Your task to perform on an android device: see sites visited before in the chrome app Image 0: 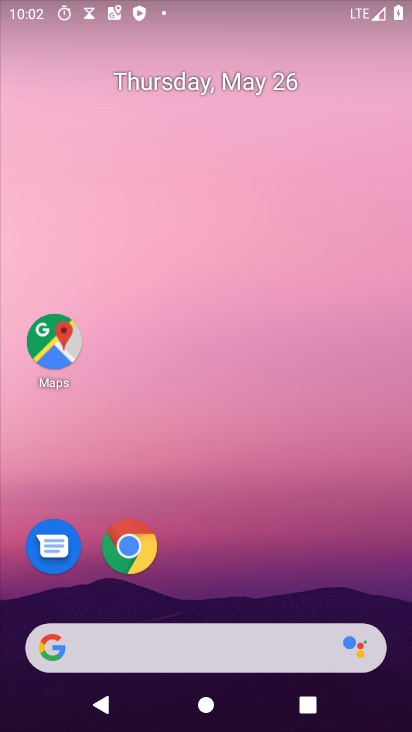
Step 0: drag from (382, 569) to (339, 139)
Your task to perform on an android device: see sites visited before in the chrome app Image 1: 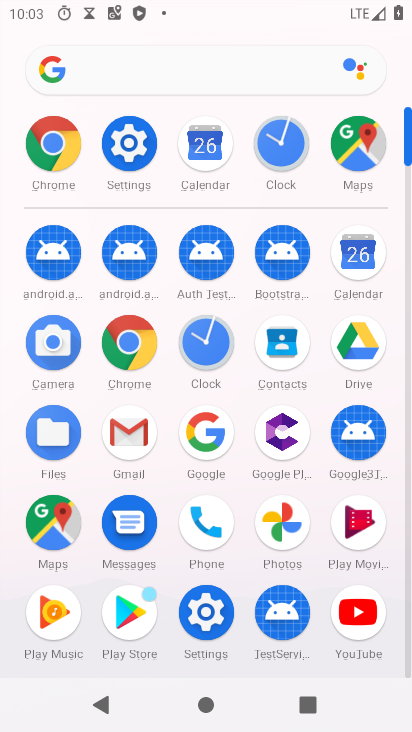
Step 1: click (134, 365)
Your task to perform on an android device: see sites visited before in the chrome app Image 2: 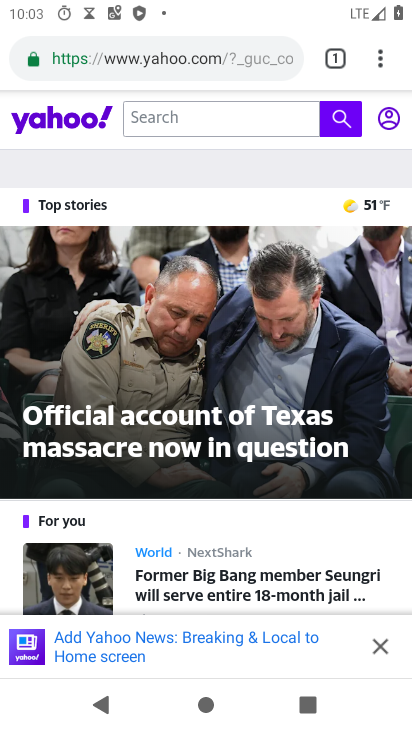
Step 2: drag from (386, 68) to (181, 576)
Your task to perform on an android device: see sites visited before in the chrome app Image 3: 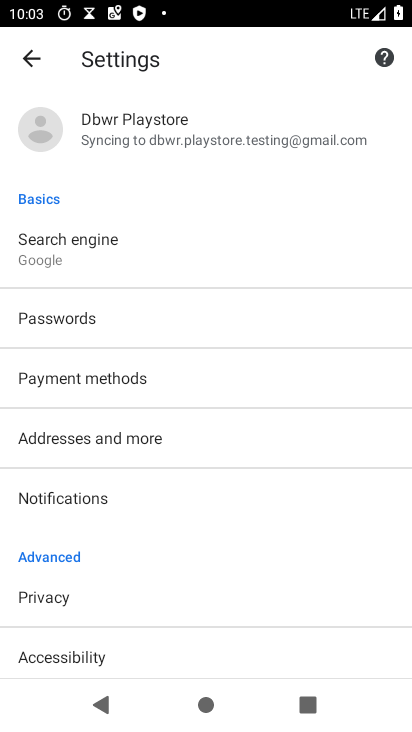
Step 3: click (28, 63)
Your task to perform on an android device: see sites visited before in the chrome app Image 4: 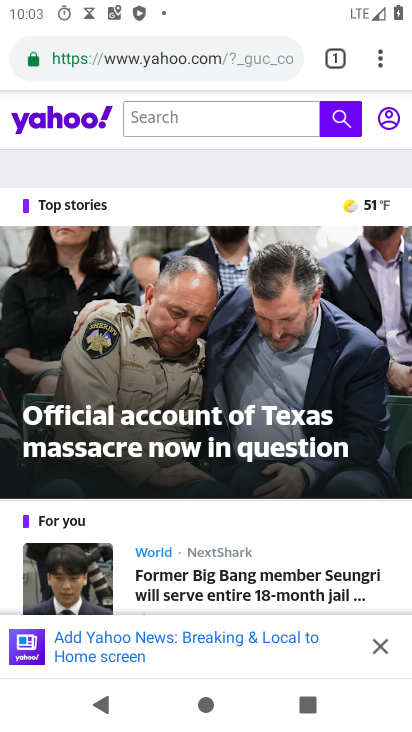
Step 4: drag from (392, 55) to (189, 199)
Your task to perform on an android device: see sites visited before in the chrome app Image 5: 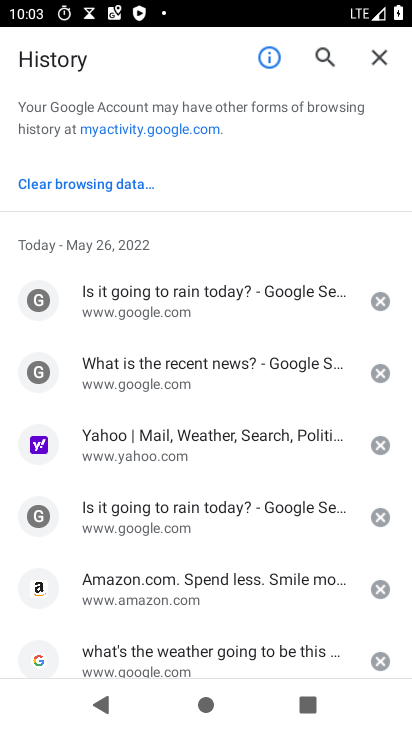
Step 5: click (96, 186)
Your task to perform on an android device: see sites visited before in the chrome app Image 6: 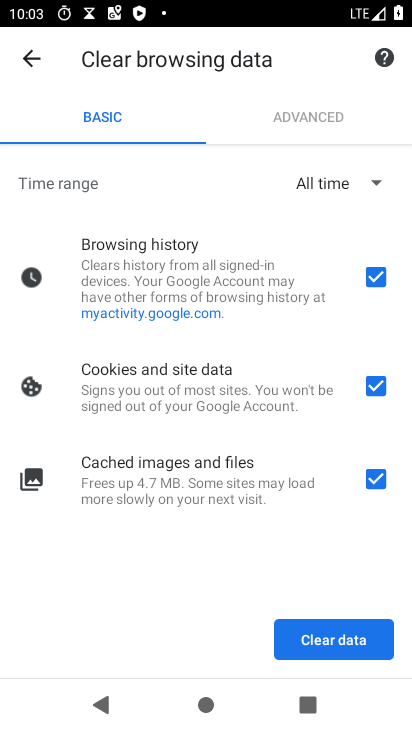
Step 6: click (311, 643)
Your task to perform on an android device: see sites visited before in the chrome app Image 7: 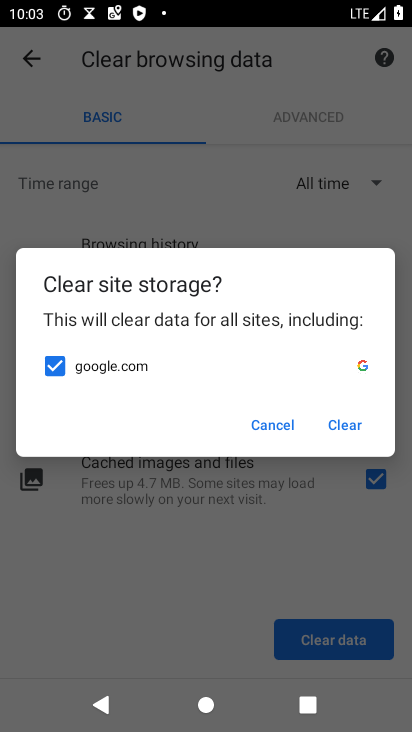
Step 7: click (352, 428)
Your task to perform on an android device: see sites visited before in the chrome app Image 8: 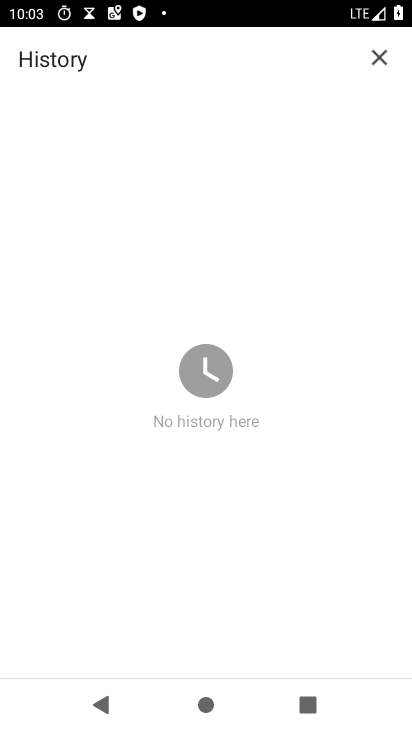
Step 8: task complete